Your task to perform on an android device: show emergency info Image 0: 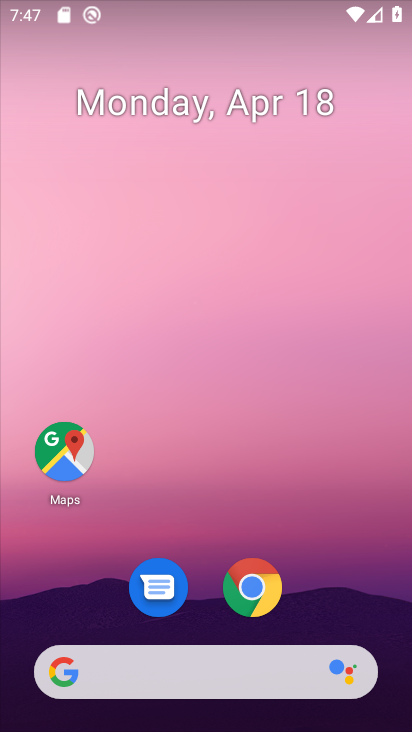
Step 0: drag from (230, 10) to (291, 450)
Your task to perform on an android device: show emergency info Image 1: 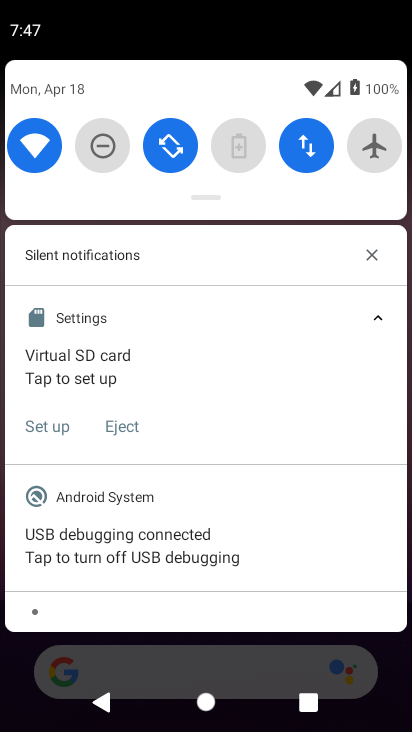
Step 1: drag from (279, 81) to (273, 516)
Your task to perform on an android device: show emergency info Image 2: 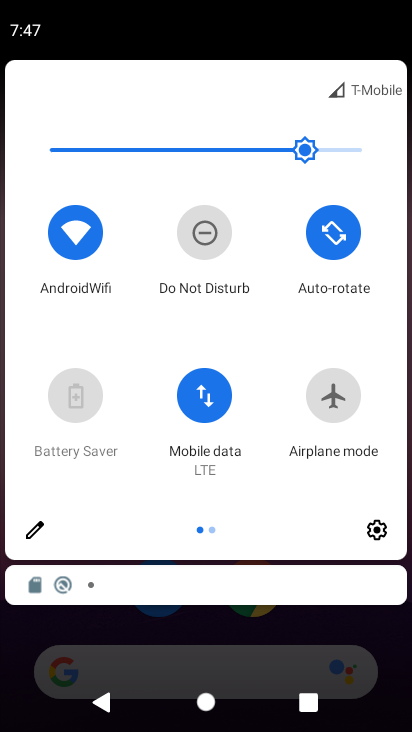
Step 2: click (374, 537)
Your task to perform on an android device: show emergency info Image 3: 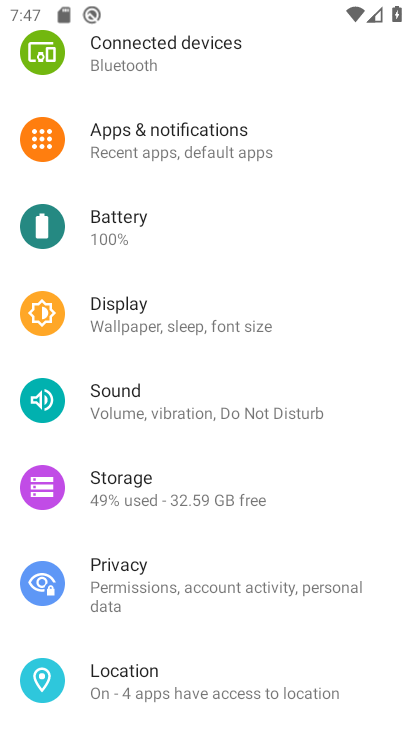
Step 3: drag from (124, 632) to (212, 117)
Your task to perform on an android device: show emergency info Image 4: 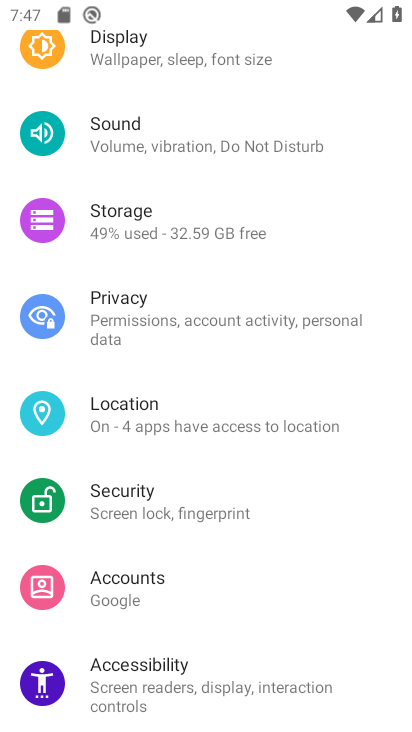
Step 4: drag from (76, 653) to (200, 81)
Your task to perform on an android device: show emergency info Image 5: 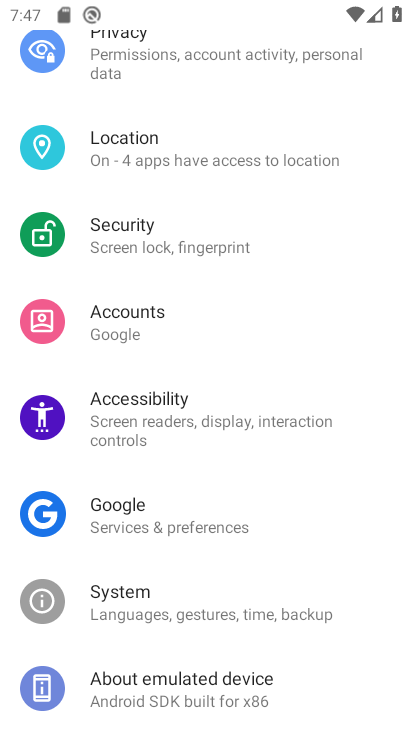
Step 5: click (210, 685)
Your task to perform on an android device: show emergency info Image 6: 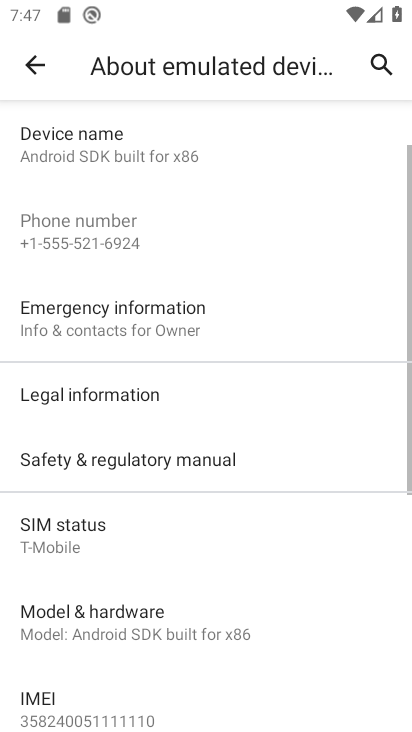
Step 6: click (239, 313)
Your task to perform on an android device: show emergency info Image 7: 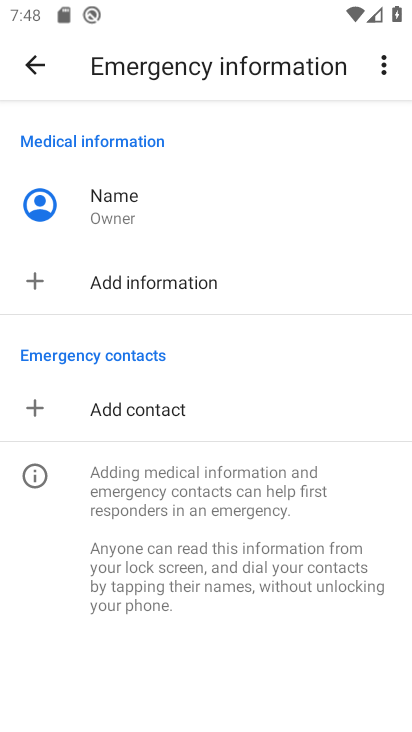
Step 7: task complete